Your task to perform on an android device: What's the weather going to be this weekend? Image 0: 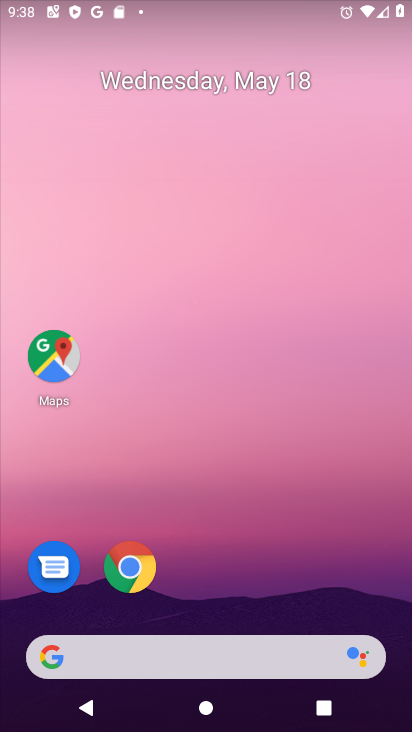
Step 0: drag from (230, 658) to (148, 76)
Your task to perform on an android device: What's the weather going to be this weekend? Image 1: 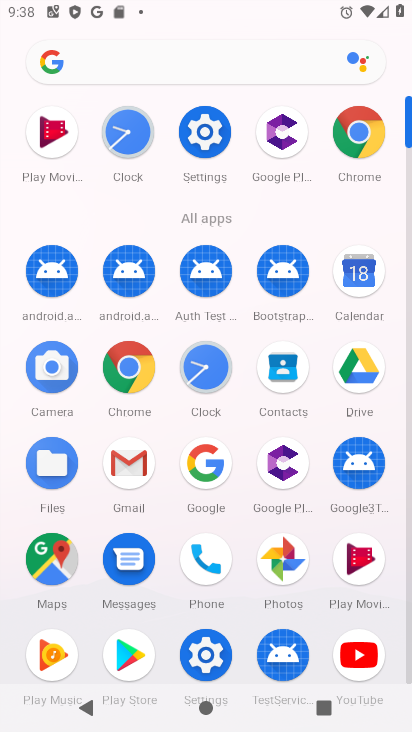
Step 1: click (202, 455)
Your task to perform on an android device: What's the weather going to be this weekend? Image 2: 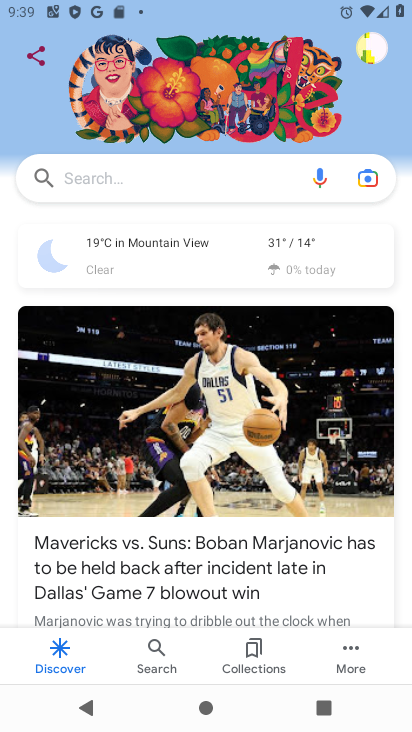
Step 2: click (53, 257)
Your task to perform on an android device: What's the weather going to be this weekend? Image 3: 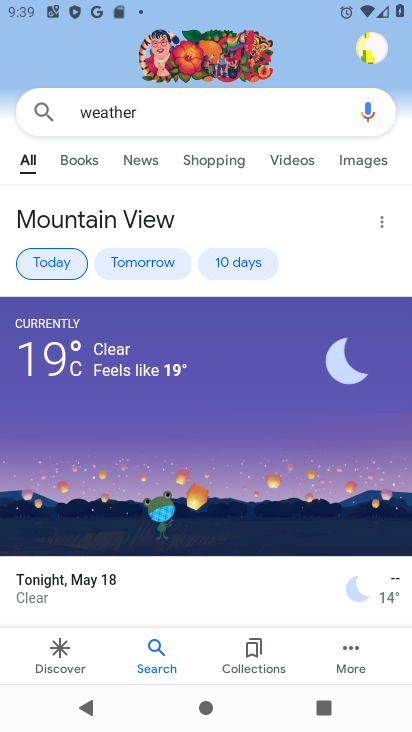
Step 3: click (232, 270)
Your task to perform on an android device: What's the weather going to be this weekend? Image 4: 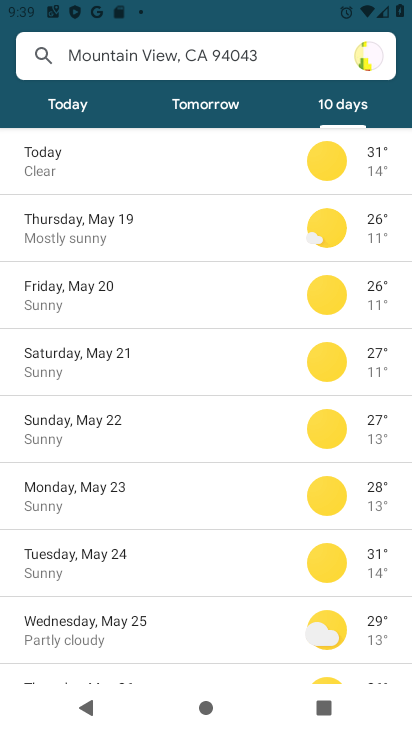
Step 4: task complete